Your task to perform on an android device: turn off location Image 0: 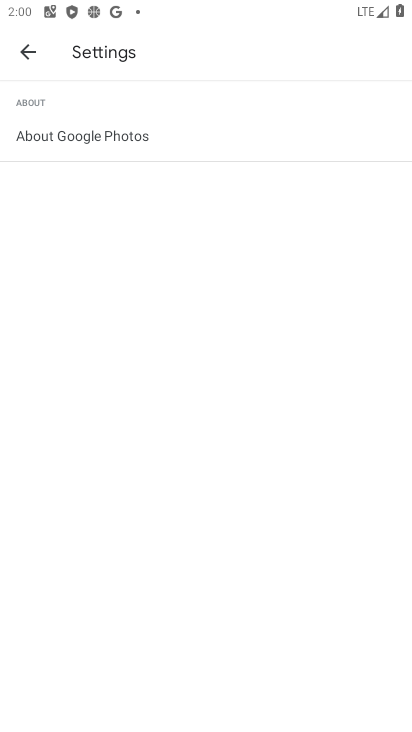
Step 0: press home button
Your task to perform on an android device: turn off location Image 1: 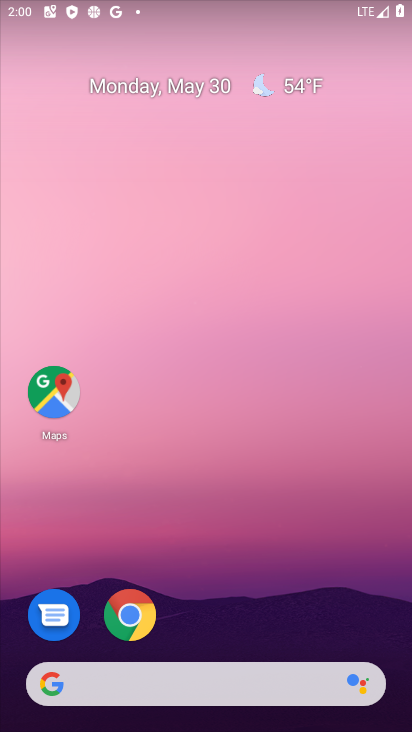
Step 1: drag from (305, 571) to (283, 7)
Your task to perform on an android device: turn off location Image 2: 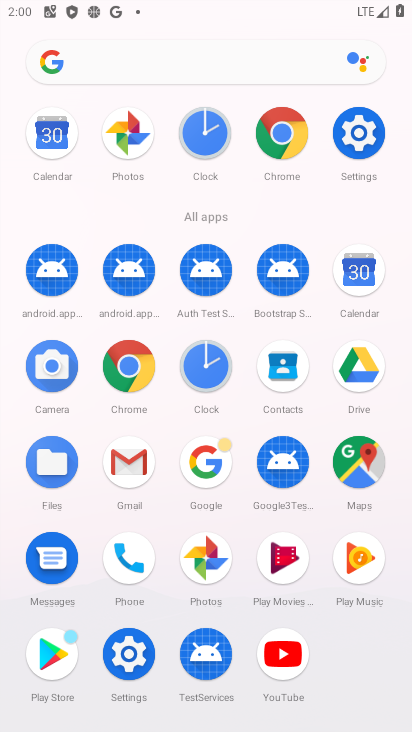
Step 2: click (357, 149)
Your task to perform on an android device: turn off location Image 3: 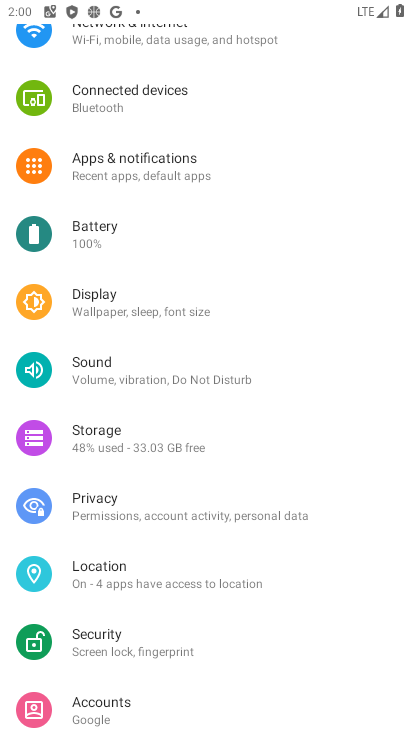
Step 3: click (162, 575)
Your task to perform on an android device: turn off location Image 4: 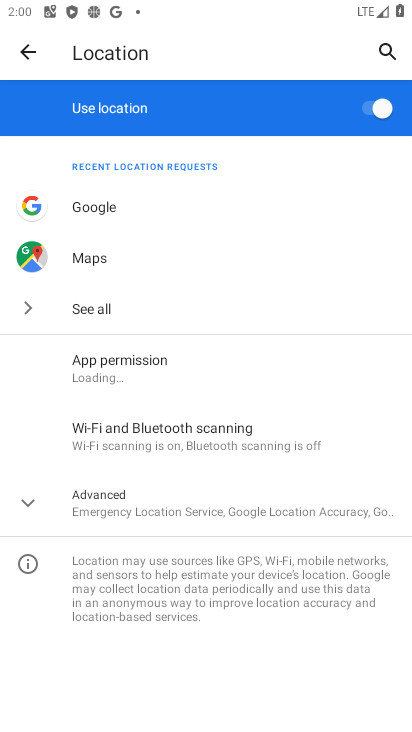
Step 4: click (373, 106)
Your task to perform on an android device: turn off location Image 5: 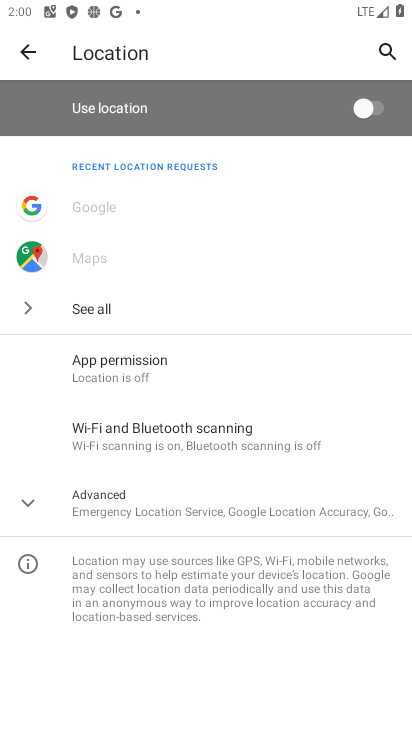
Step 5: task complete